Your task to perform on an android device: Open Reddit.com Image 0: 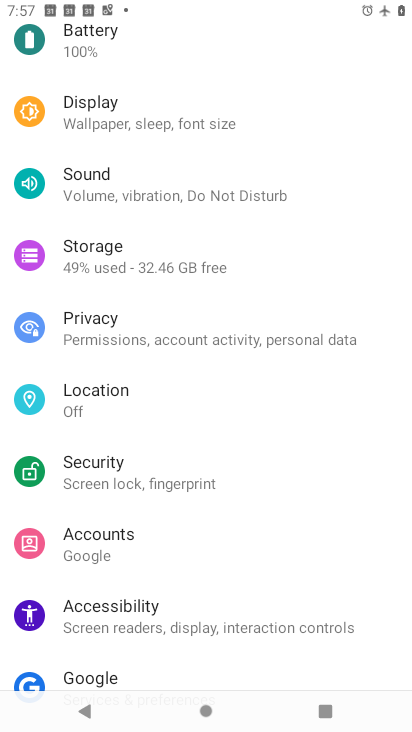
Step 0: press home button
Your task to perform on an android device: Open Reddit.com Image 1: 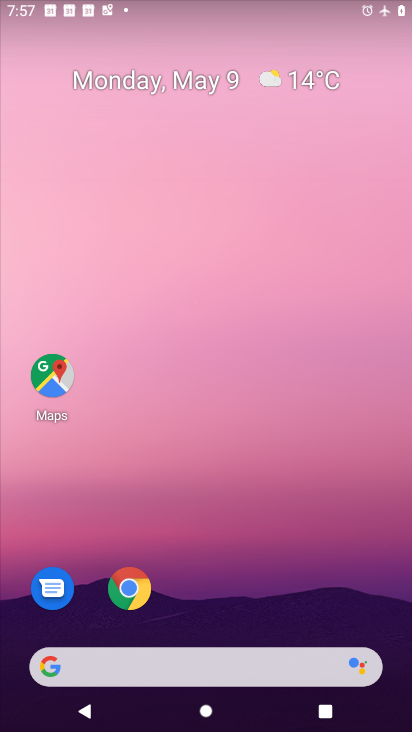
Step 1: drag from (351, 601) to (257, 19)
Your task to perform on an android device: Open Reddit.com Image 2: 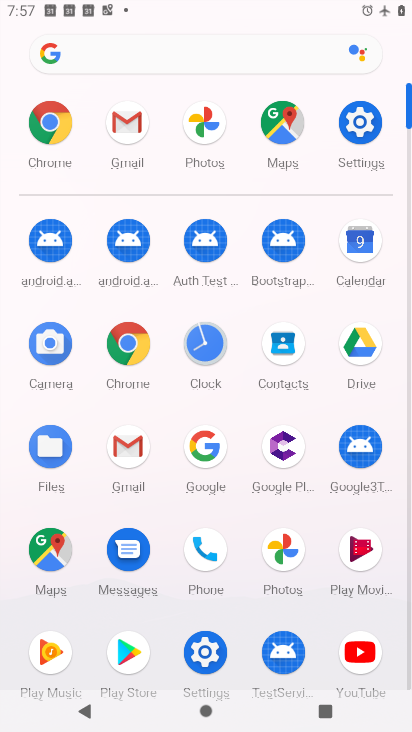
Step 2: press home button
Your task to perform on an android device: Open Reddit.com Image 3: 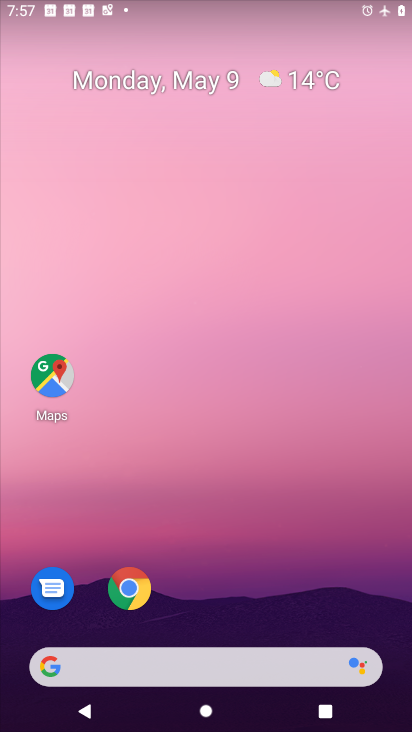
Step 3: click (197, 674)
Your task to perform on an android device: Open Reddit.com Image 4: 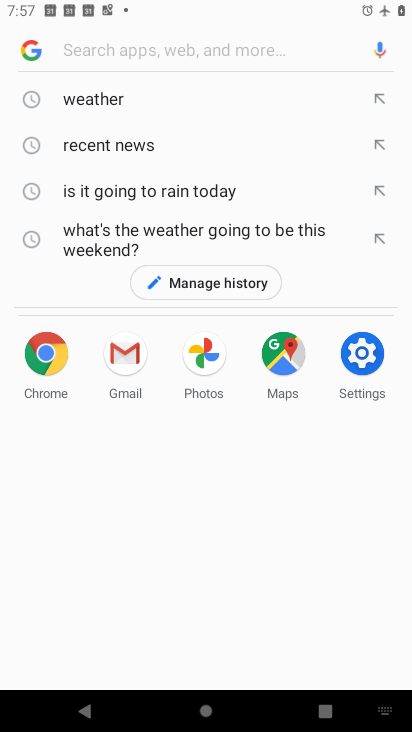
Step 4: type "reddit.com"
Your task to perform on an android device: Open Reddit.com Image 5: 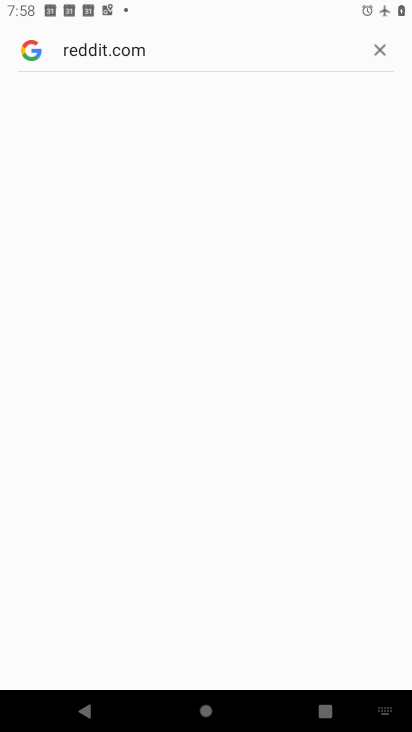
Step 5: click (261, 61)
Your task to perform on an android device: Open Reddit.com Image 6: 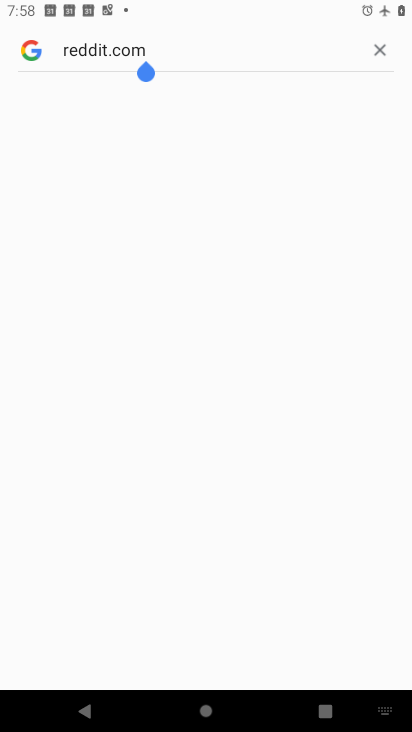
Step 6: click (375, 55)
Your task to perform on an android device: Open Reddit.com Image 7: 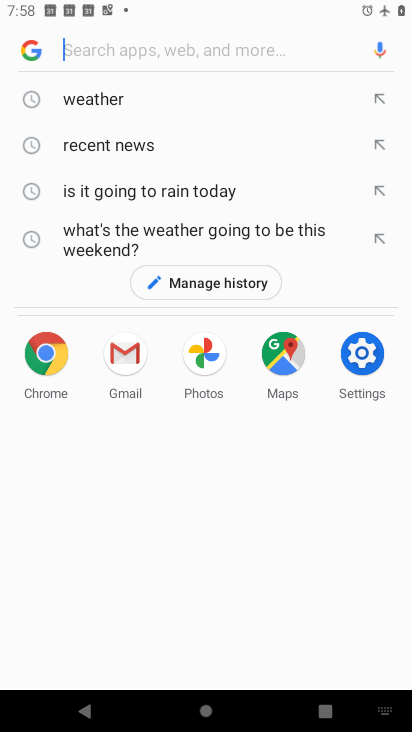
Step 7: click (40, 354)
Your task to perform on an android device: Open Reddit.com Image 8: 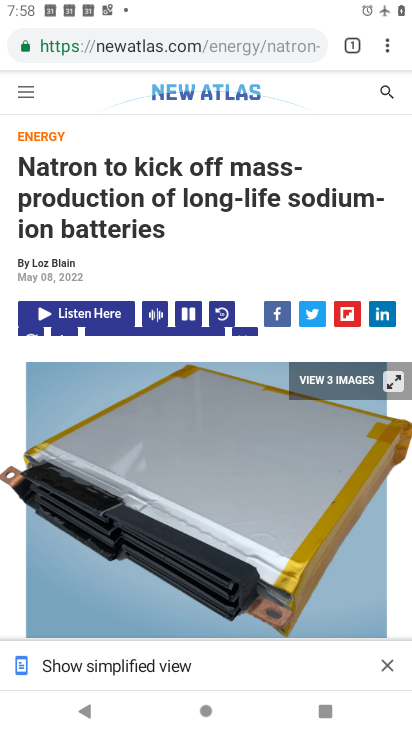
Step 8: press back button
Your task to perform on an android device: Open Reddit.com Image 9: 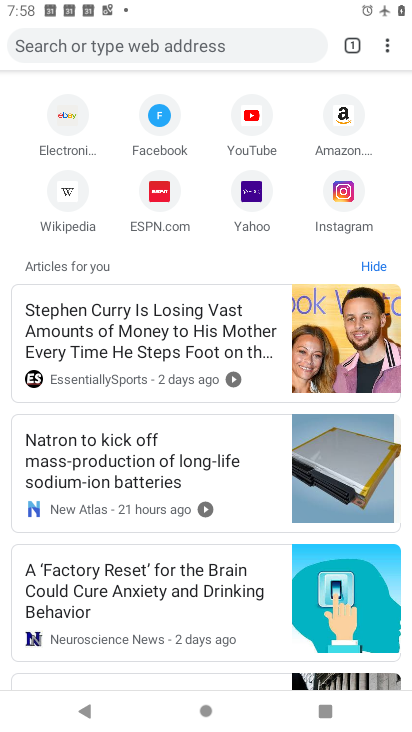
Step 9: click (144, 45)
Your task to perform on an android device: Open Reddit.com Image 10: 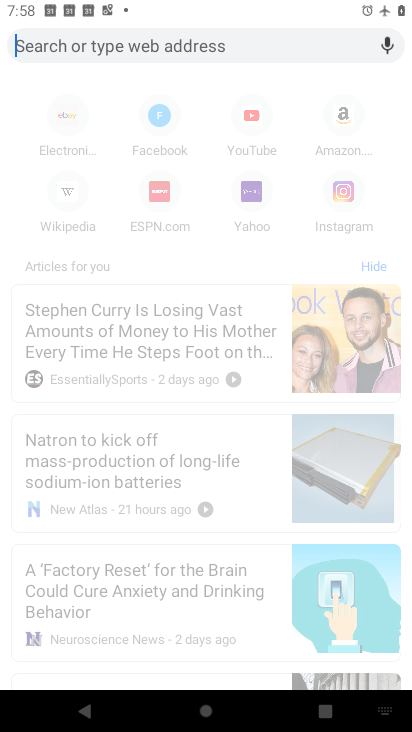
Step 10: type "reddit.com"
Your task to perform on an android device: Open Reddit.com Image 11: 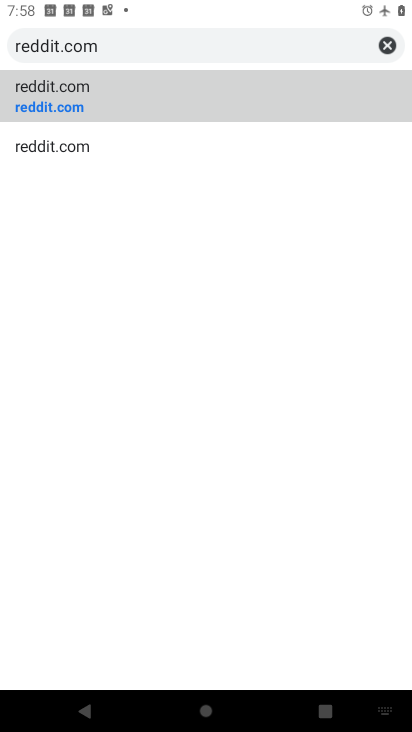
Step 11: click (177, 82)
Your task to perform on an android device: Open Reddit.com Image 12: 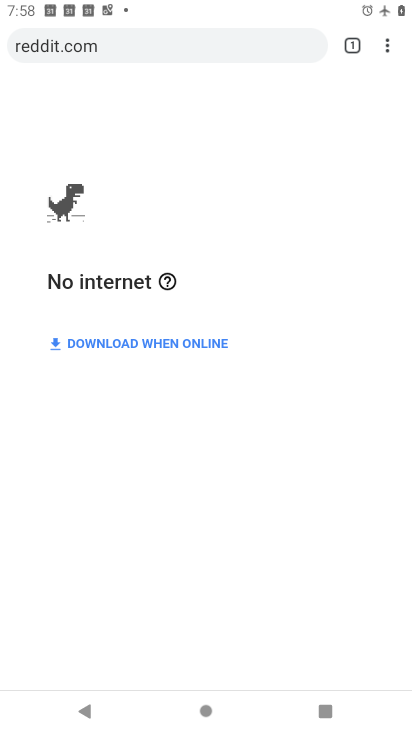
Step 12: task complete